Your task to perform on an android device: allow cookies in the chrome app Image 0: 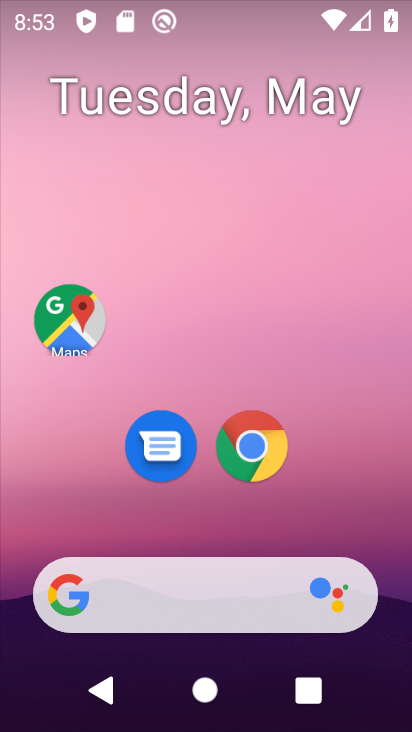
Step 0: drag from (397, 551) to (383, 282)
Your task to perform on an android device: allow cookies in the chrome app Image 1: 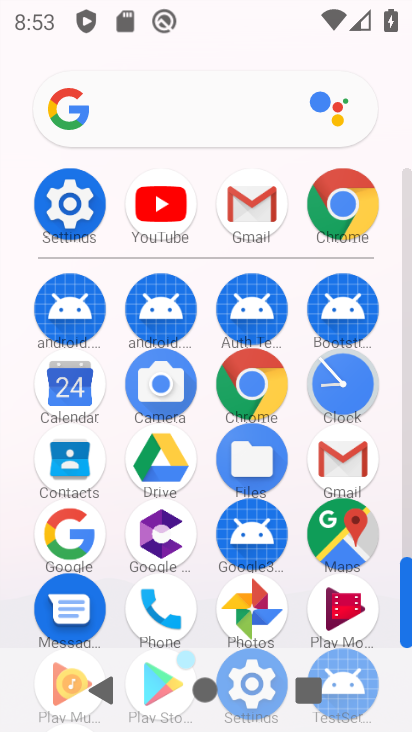
Step 1: click (252, 398)
Your task to perform on an android device: allow cookies in the chrome app Image 2: 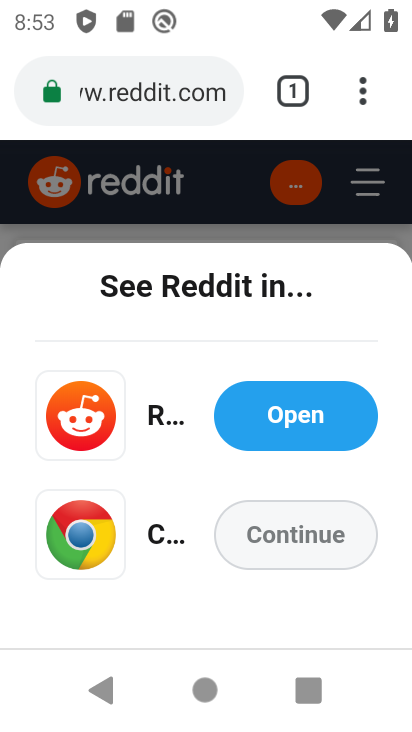
Step 2: click (360, 95)
Your task to perform on an android device: allow cookies in the chrome app Image 3: 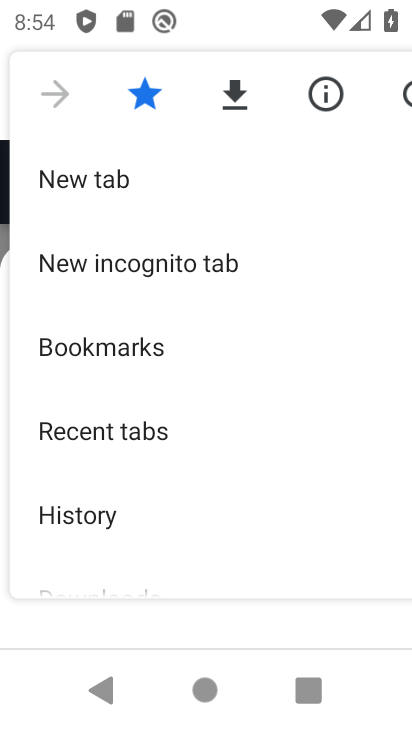
Step 3: drag from (314, 595) to (336, 466)
Your task to perform on an android device: allow cookies in the chrome app Image 4: 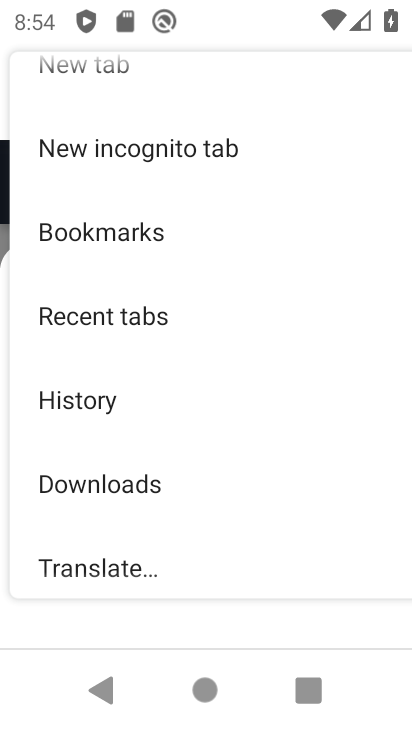
Step 4: drag from (326, 551) to (330, 451)
Your task to perform on an android device: allow cookies in the chrome app Image 5: 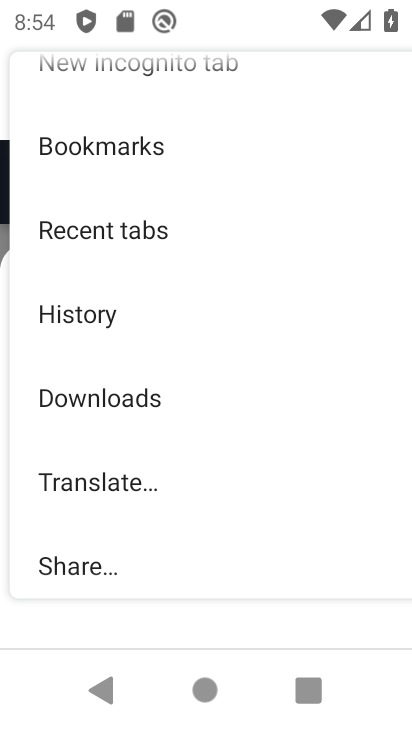
Step 5: drag from (293, 539) to (295, 430)
Your task to perform on an android device: allow cookies in the chrome app Image 6: 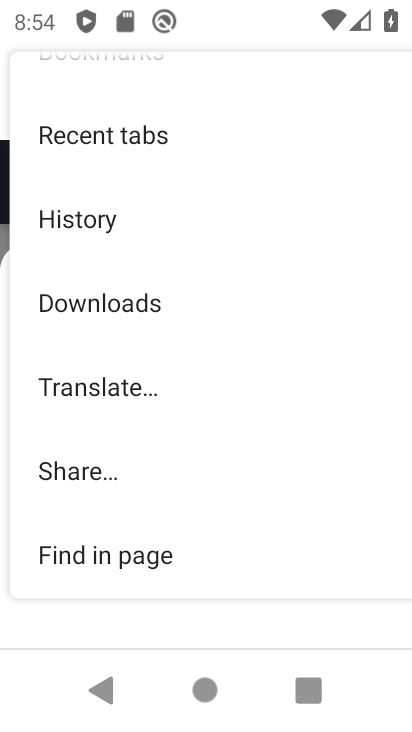
Step 6: drag from (284, 506) to (291, 404)
Your task to perform on an android device: allow cookies in the chrome app Image 7: 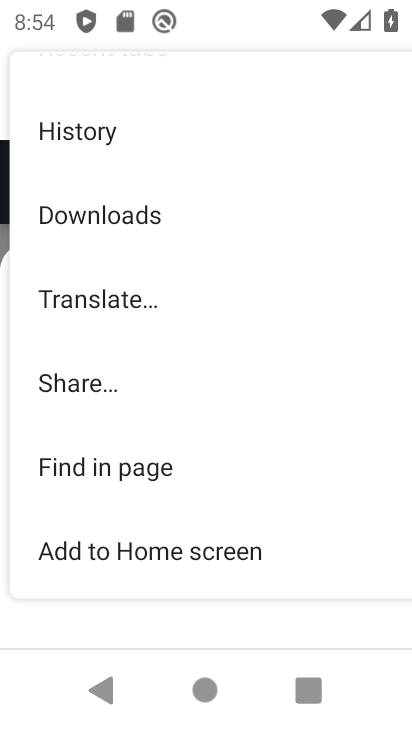
Step 7: drag from (308, 543) to (326, 414)
Your task to perform on an android device: allow cookies in the chrome app Image 8: 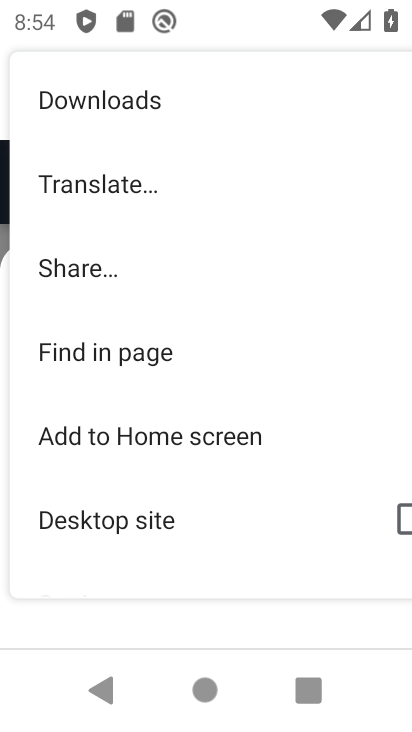
Step 8: drag from (305, 528) to (316, 428)
Your task to perform on an android device: allow cookies in the chrome app Image 9: 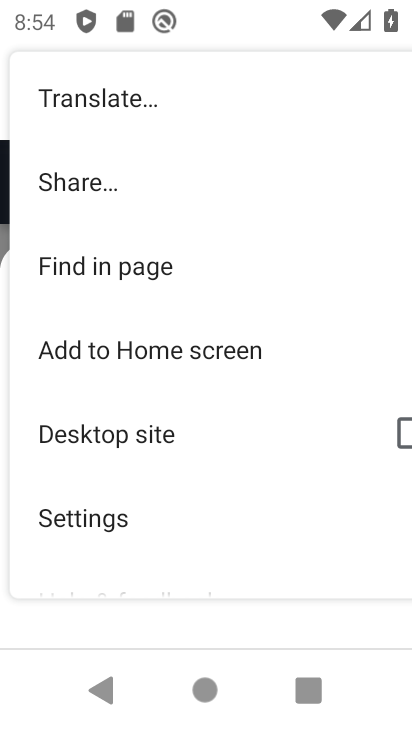
Step 9: click (215, 513)
Your task to perform on an android device: allow cookies in the chrome app Image 10: 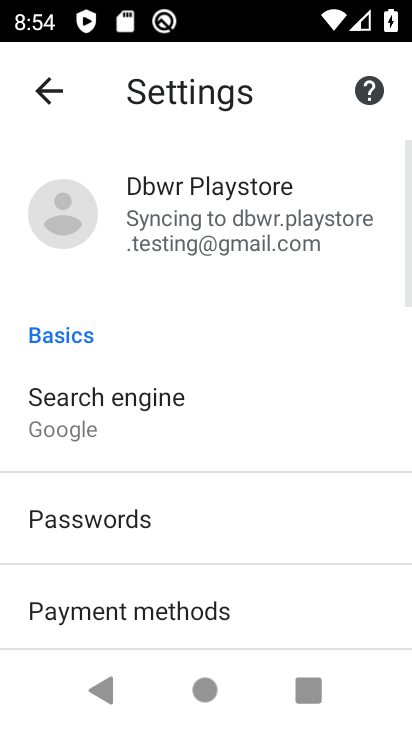
Step 10: drag from (315, 544) to (327, 471)
Your task to perform on an android device: allow cookies in the chrome app Image 11: 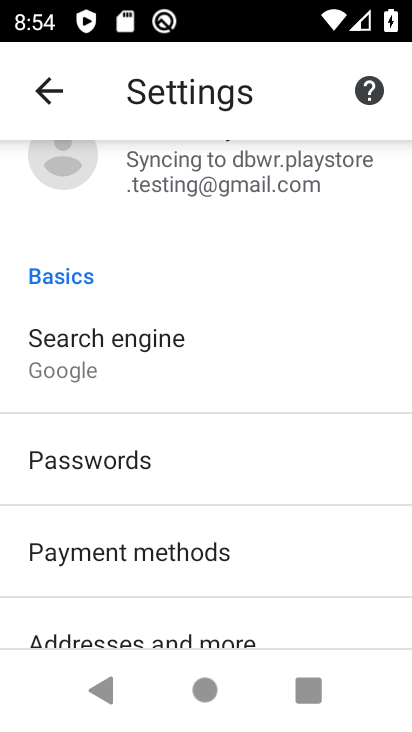
Step 11: drag from (299, 571) to (304, 507)
Your task to perform on an android device: allow cookies in the chrome app Image 12: 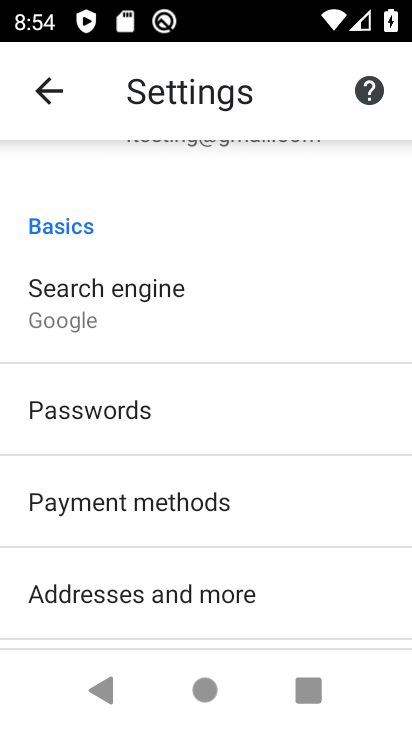
Step 12: drag from (322, 588) to (328, 493)
Your task to perform on an android device: allow cookies in the chrome app Image 13: 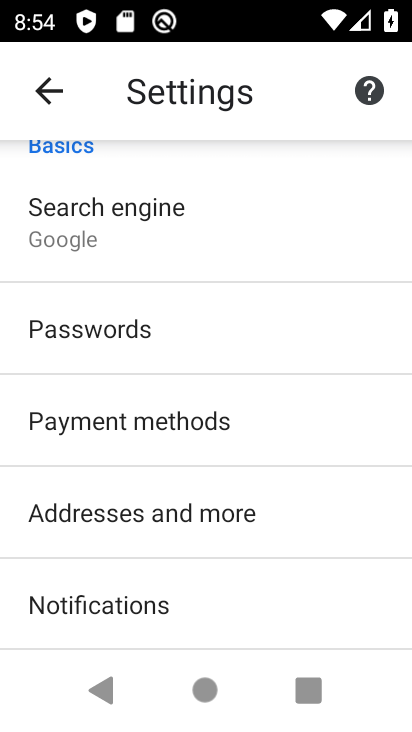
Step 13: drag from (325, 577) to (330, 479)
Your task to perform on an android device: allow cookies in the chrome app Image 14: 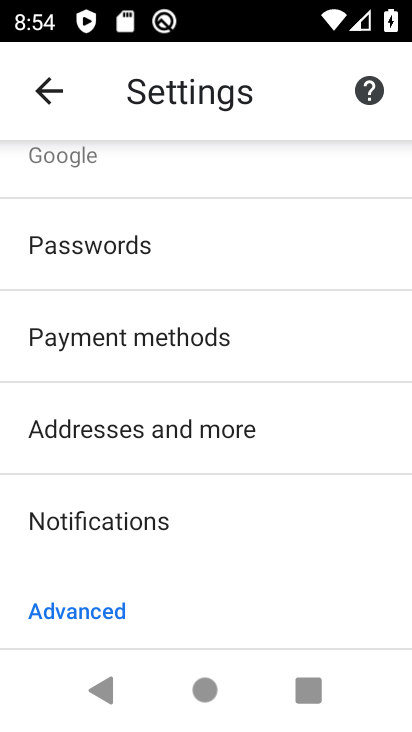
Step 14: drag from (314, 590) to (324, 471)
Your task to perform on an android device: allow cookies in the chrome app Image 15: 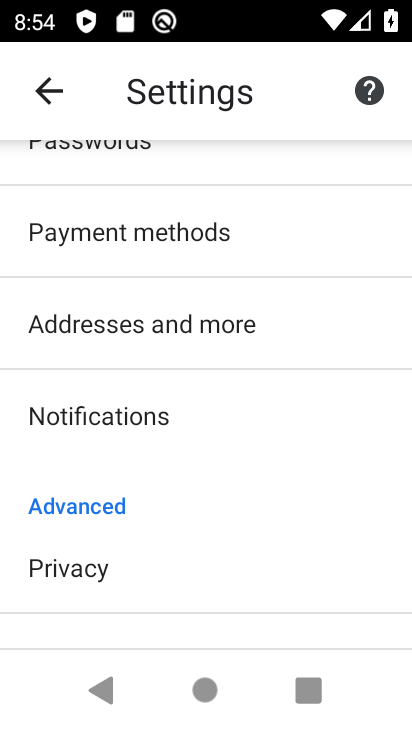
Step 15: drag from (291, 600) to (289, 478)
Your task to perform on an android device: allow cookies in the chrome app Image 16: 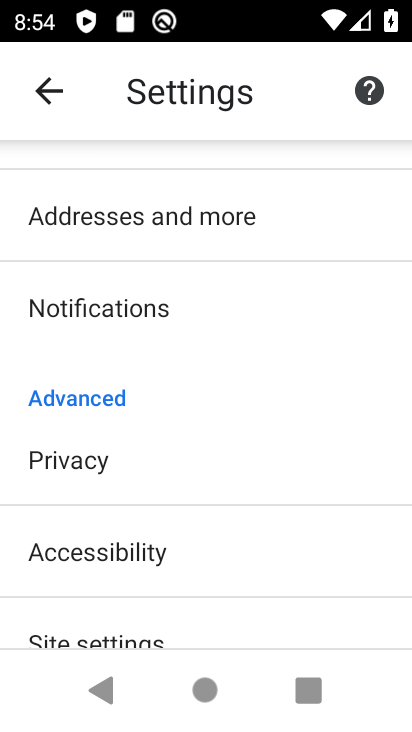
Step 16: drag from (279, 604) to (294, 488)
Your task to perform on an android device: allow cookies in the chrome app Image 17: 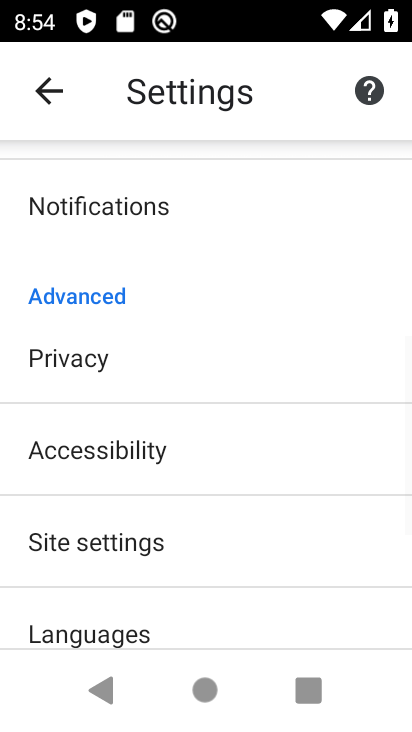
Step 17: click (267, 555)
Your task to perform on an android device: allow cookies in the chrome app Image 18: 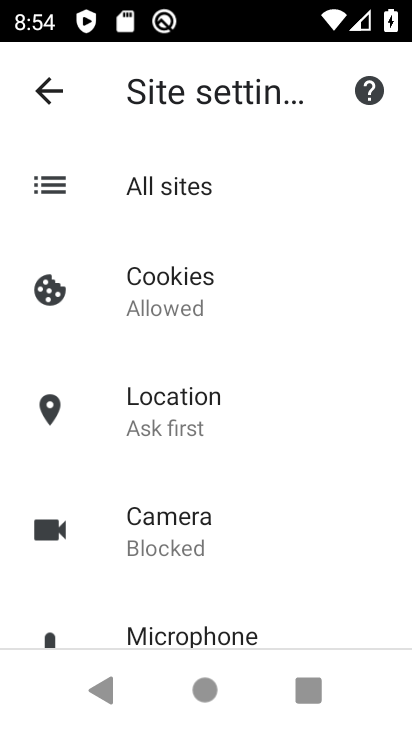
Step 18: click (237, 288)
Your task to perform on an android device: allow cookies in the chrome app Image 19: 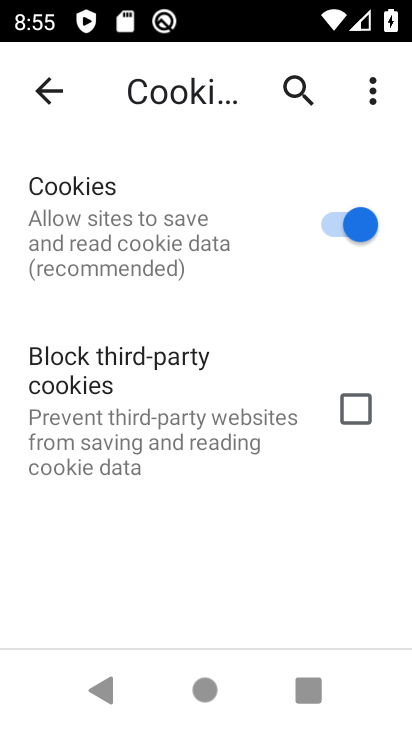
Step 19: task complete